Your task to perform on an android device: turn off notifications settings in the gmail app Image 0: 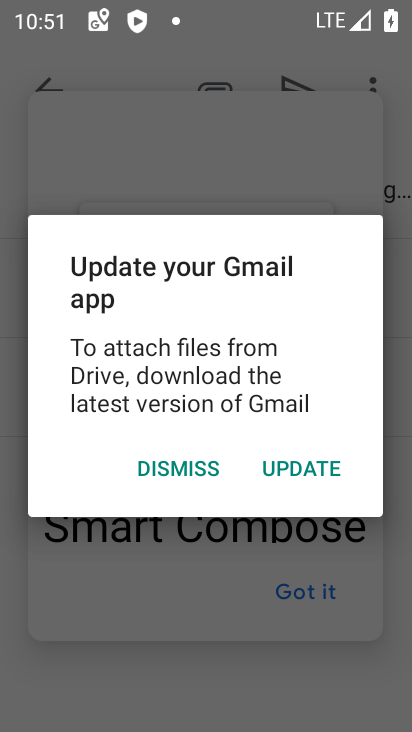
Step 0: press home button
Your task to perform on an android device: turn off notifications settings in the gmail app Image 1: 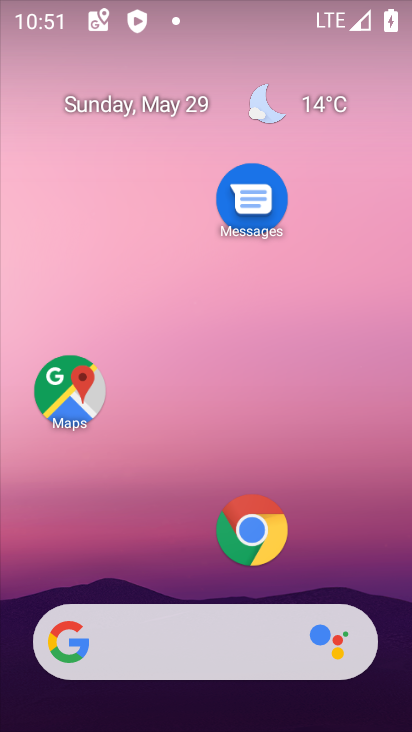
Step 1: drag from (154, 545) to (155, 56)
Your task to perform on an android device: turn off notifications settings in the gmail app Image 2: 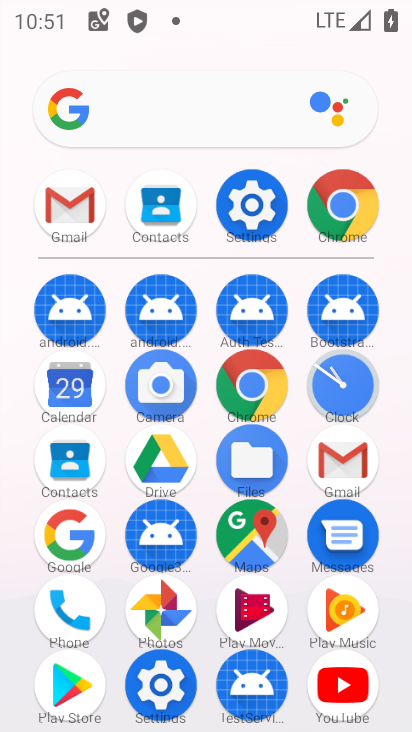
Step 2: click (354, 458)
Your task to perform on an android device: turn off notifications settings in the gmail app Image 3: 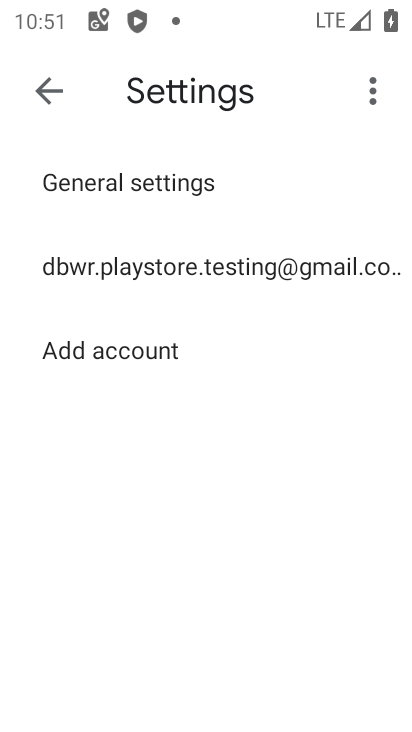
Step 3: click (160, 185)
Your task to perform on an android device: turn off notifications settings in the gmail app Image 4: 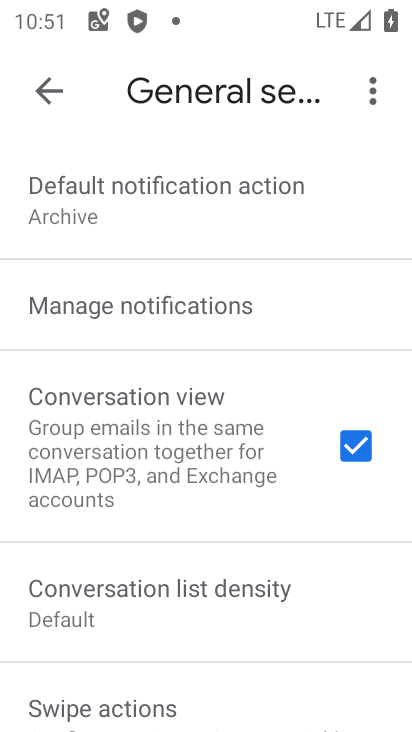
Step 4: click (157, 313)
Your task to perform on an android device: turn off notifications settings in the gmail app Image 5: 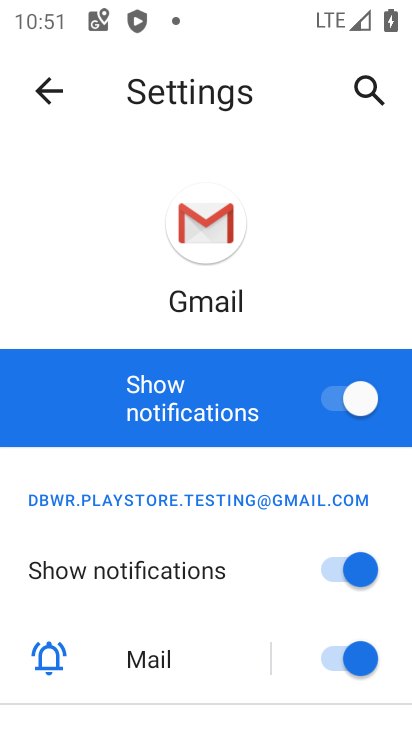
Step 5: click (316, 399)
Your task to perform on an android device: turn off notifications settings in the gmail app Image 6: 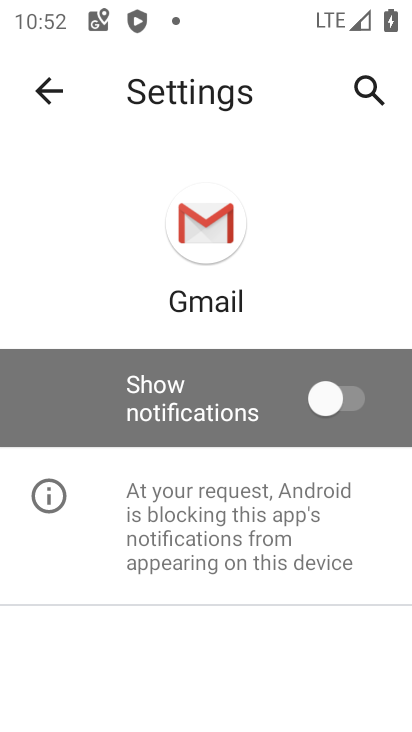
Step 6: task complete